Your task to perform on an android device: turn off location history Image 0: 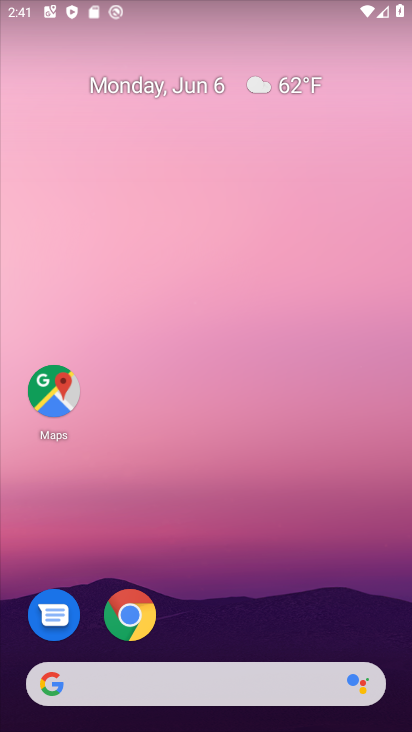
Step 0: drag from (260, 438) to (271, 38)
Your task to perform on an android device: turn off location history Image 1: 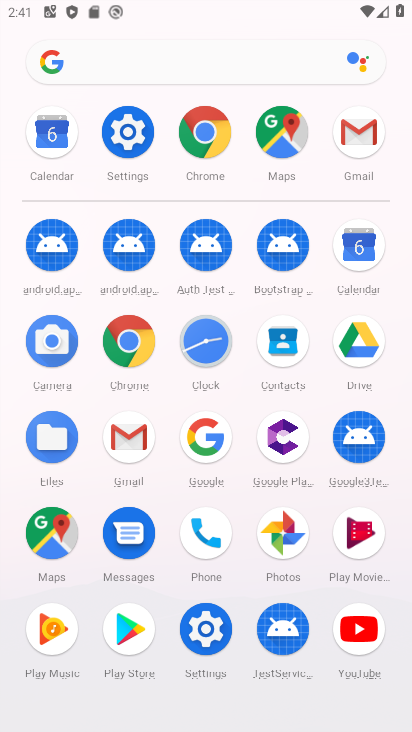
Step 1: click (118, 140)
Your task to perform on an android device: turn off location history Image 2: 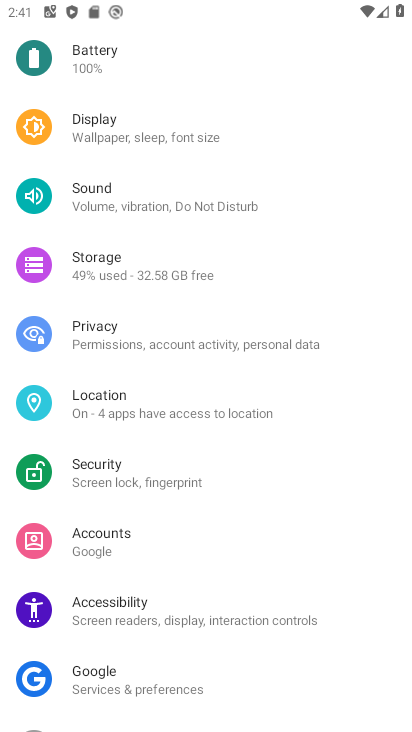
Step 2: click (132, 398)
Your task to perform on an android device: turn off location history Image 3: 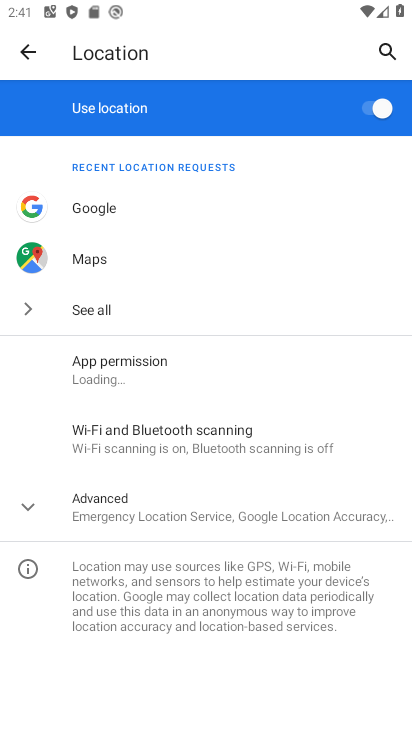
Step 3: click (170, 512)
Your task to perform on an android device: turn off location history Image 4: 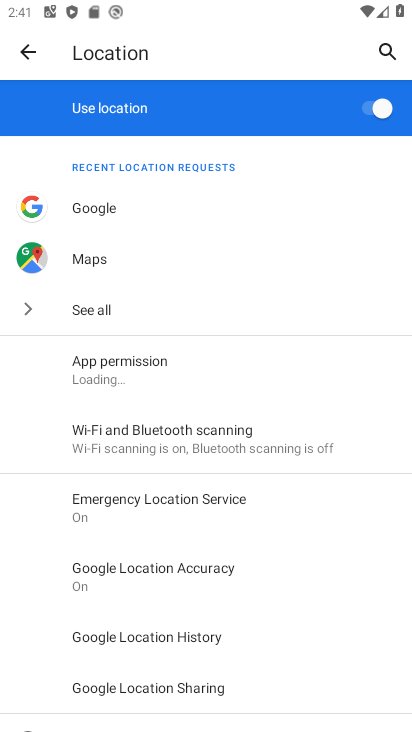
Step 4: click (251, 634)
Your task to perform on an android device: turn off location history Image 5: 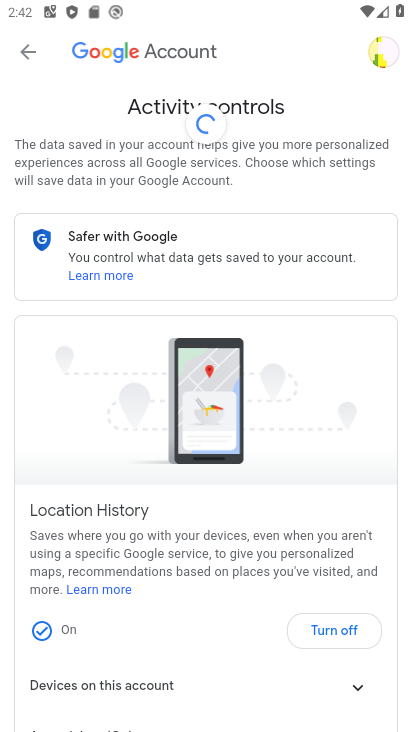
Step 5: drag from (303, 656) to (317, 573)
Your task to perform on an android device: turn off location history Image 6: 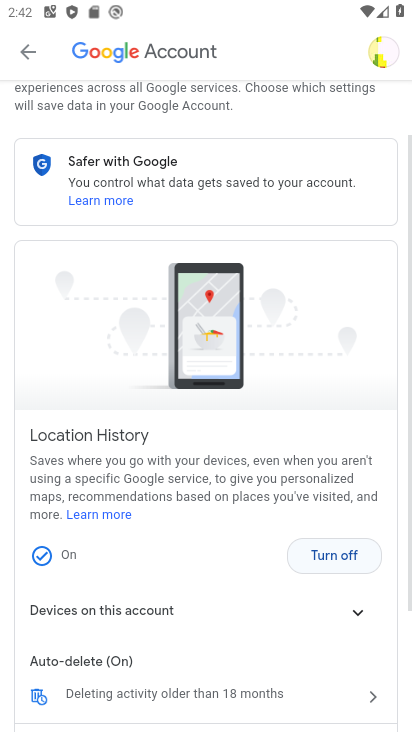
Step 6: click (337, 632)
Your task to perform on an android device: turn off location history Image 7: 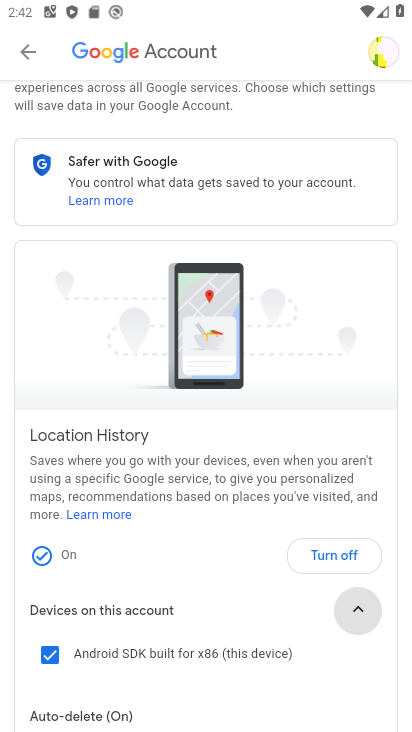
Step 7: click (329, 557)
Your task to perform on an android device: turn off location history Image 8: 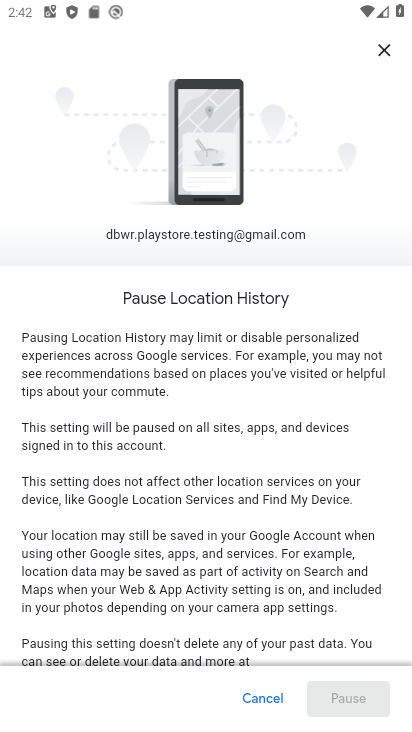
Step 8: drag from (336, 553) to (371, 29)
Your task to perform on an android device: turn off location history Image 9: 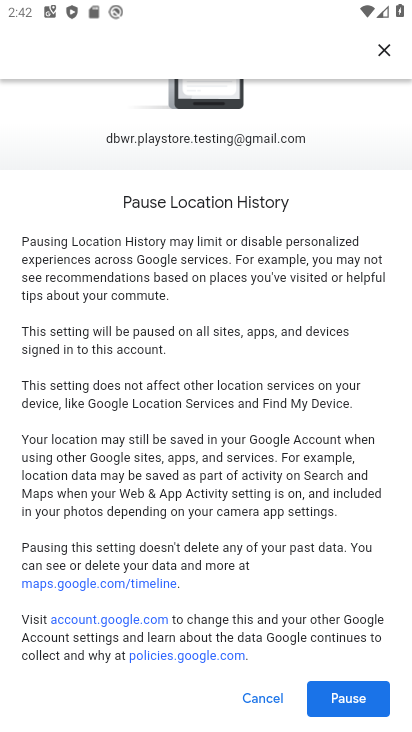
Step 9: click (355, 697)
Your task to perform on an android device: turn off location history Image 10: 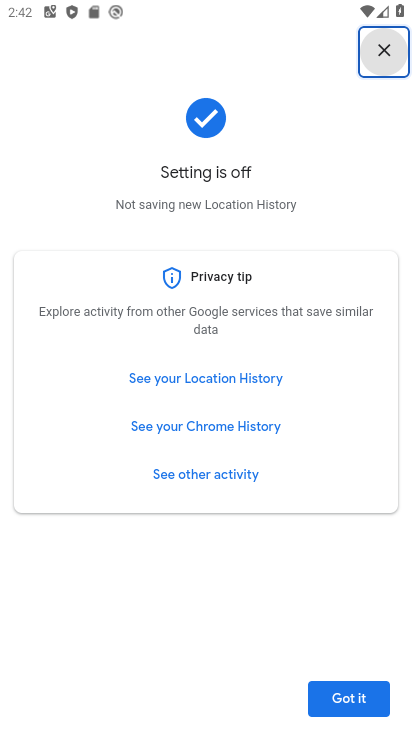
Step 10: click (354, 715)
Your task to perform on an android device: turn off location history Image 11: 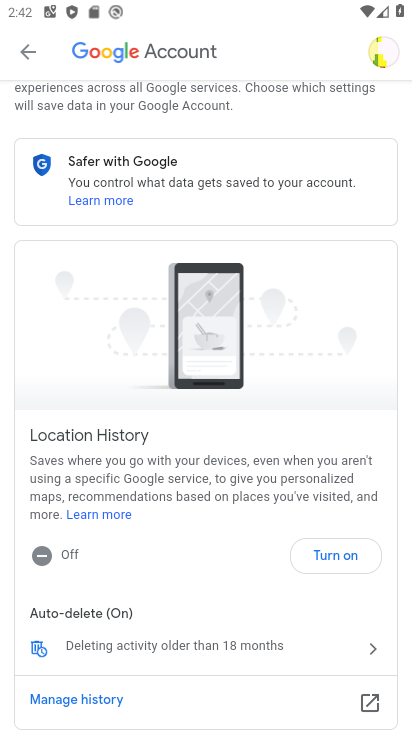
Step 11: task complete